Your task to perform on an android device: turn pop-ups off in chrome Image 0: 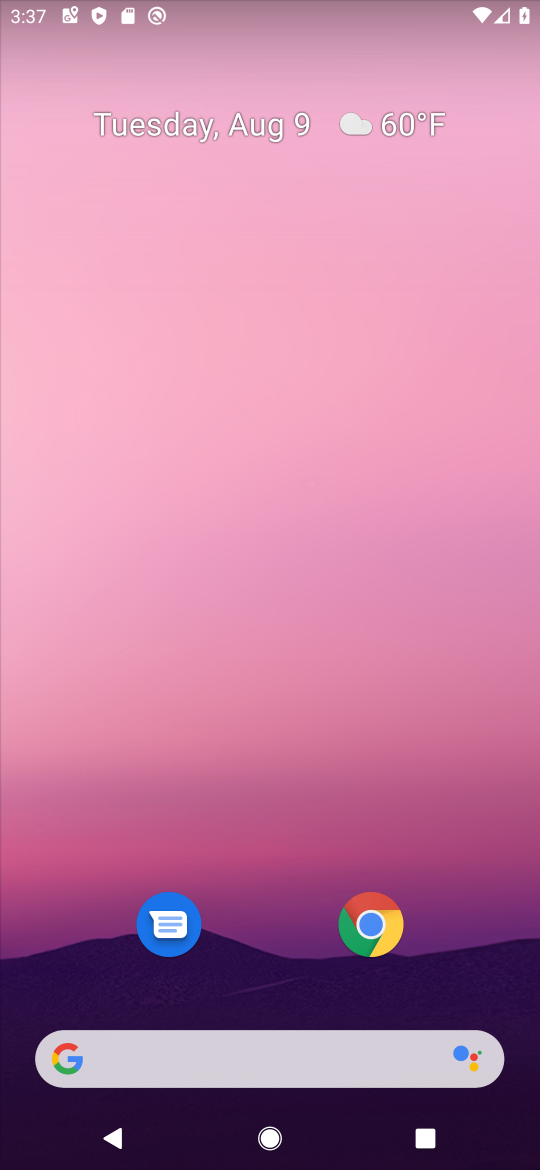
Step 0: click (369, 925)
Your task to perform on an android device: turn pop-ups off in chrome Image 1: 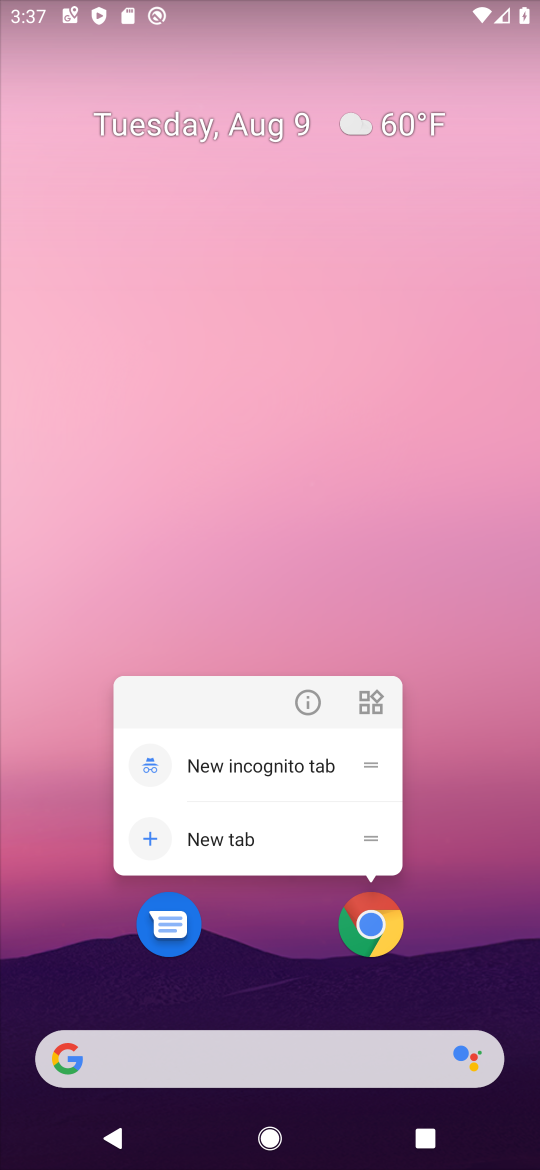
Step 1: click (369, 925)
Your task to perform on an android device: turn pop-ups off in chrome Image 2: 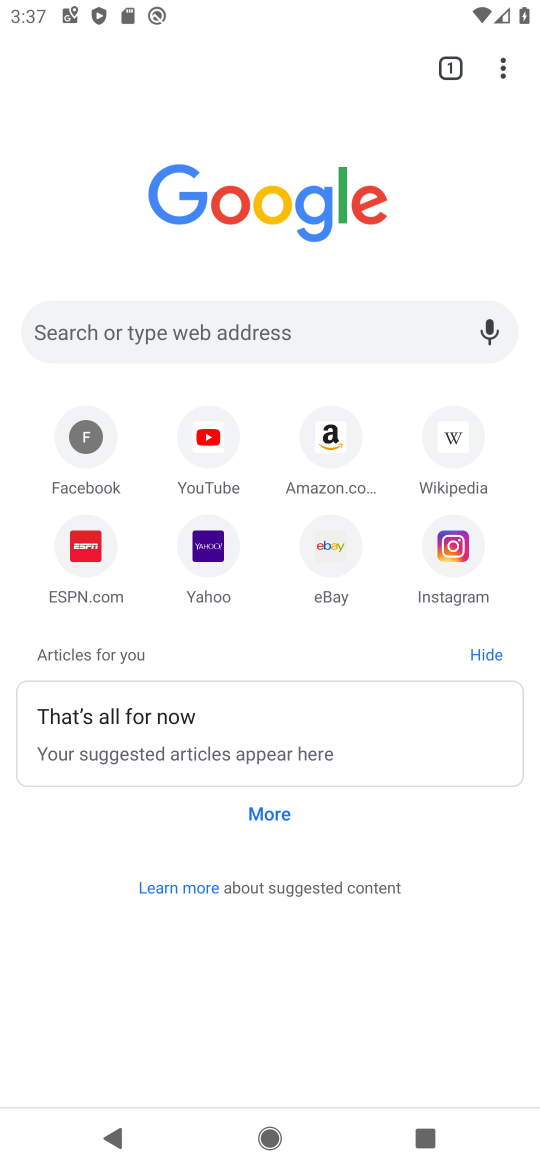
Step 2: click (504, 67)
Your task to perform on an android device: turn pop-ups off in chrome Image 3: 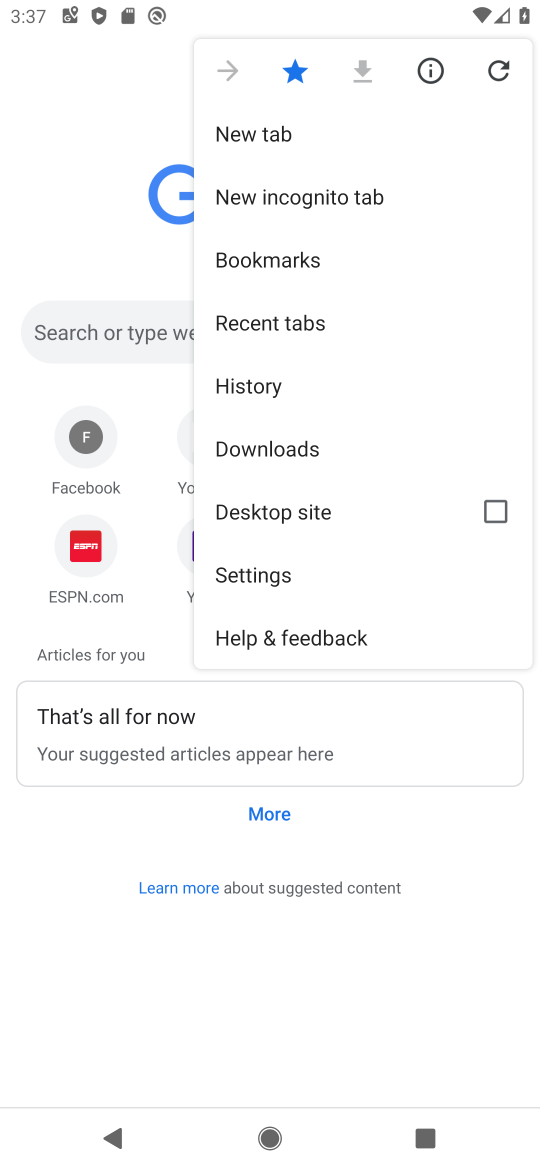
Step 3: click (285, 574)
Your task to perform on an android device: turn pop-ups off in chrome Image 4: 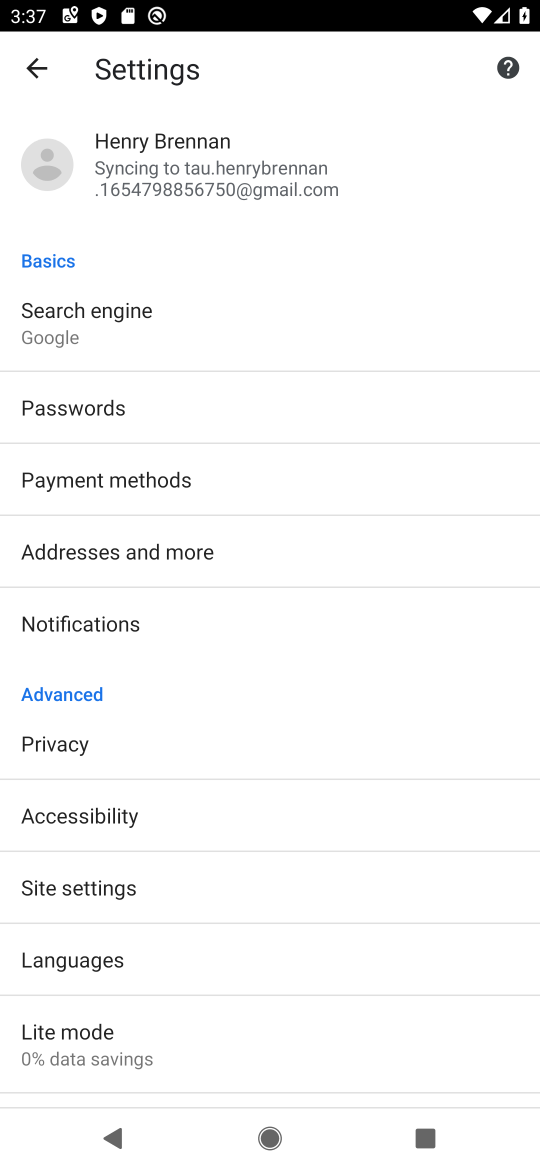
Step 4: click (315, 901)
Your task to perform on an android device: turn pop-ups off in chrome Image 5: 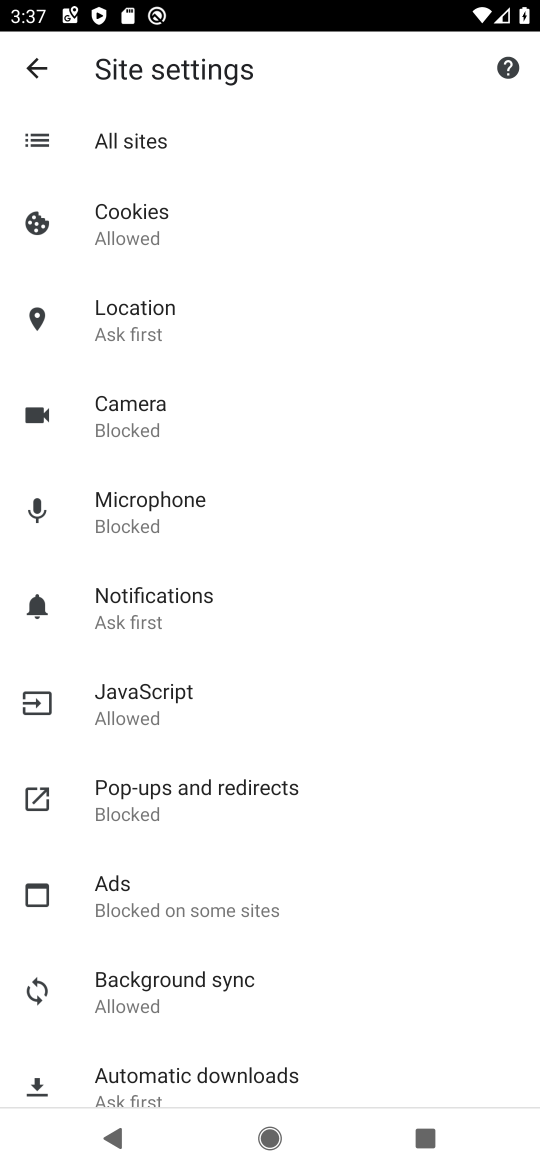
Step 5: click (249, 790)
Your task to perform on an android device: turn pop-ups off in chrome Image 6: 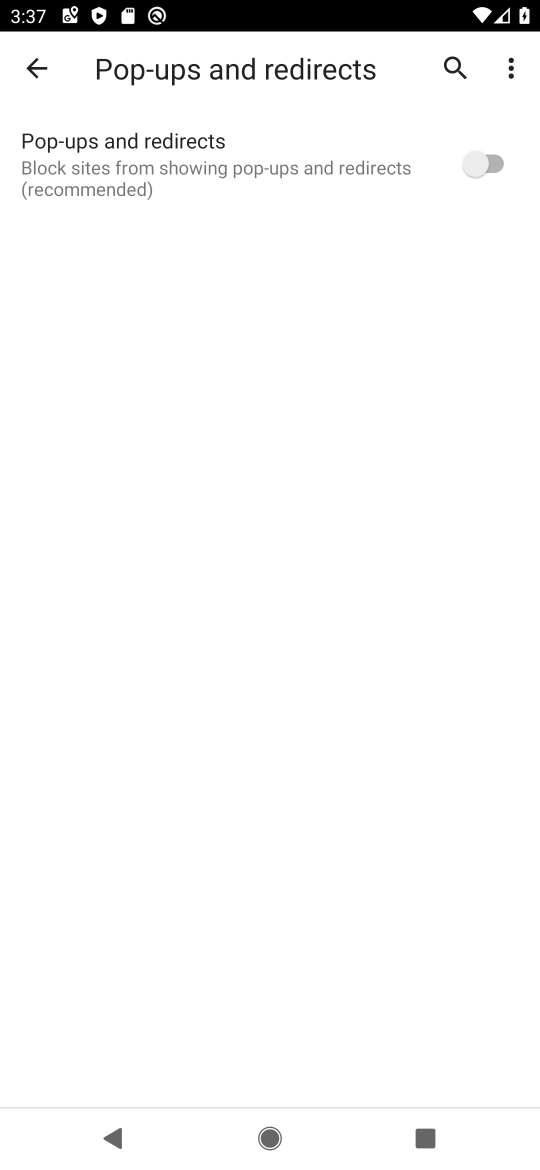
Step 6: task complete